Your task to perform on an android device: check battery use Image 0: 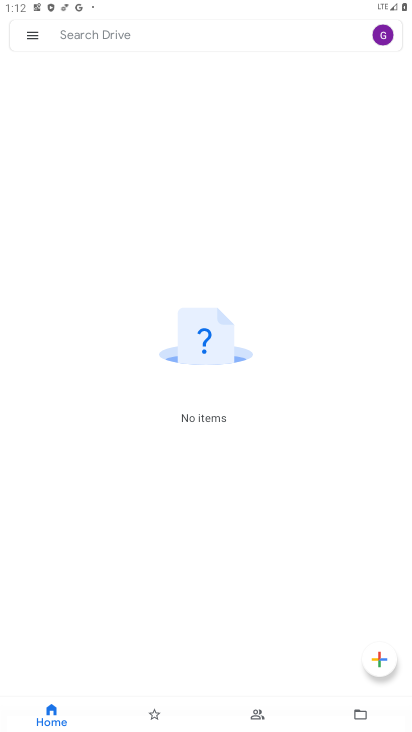
Step 0: press home button
Your task to perform on an android device: check battery use Image 1: 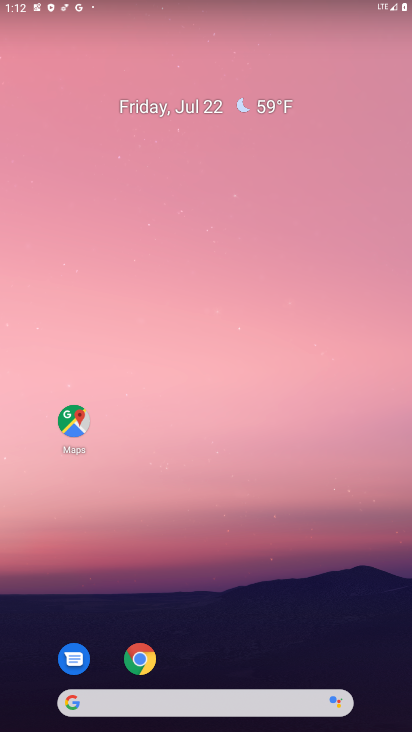
Step 1: drag from (289, 437) to (291, 12)
Your task to perform on an android device: check battery use Image 2: 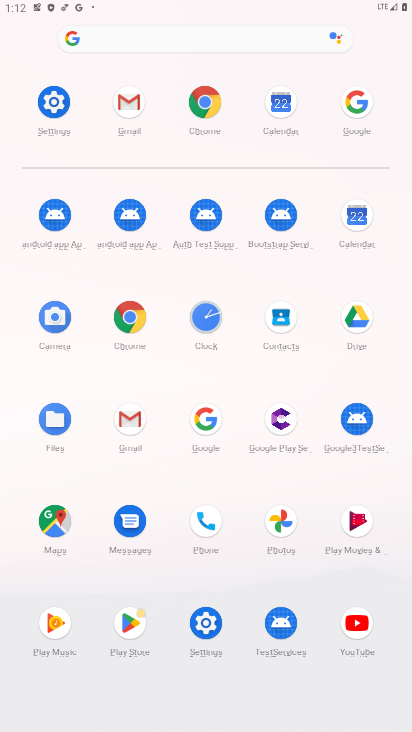
Step 2: click (57, 101)
Your task to perform on an android device: check battery use Image 3: 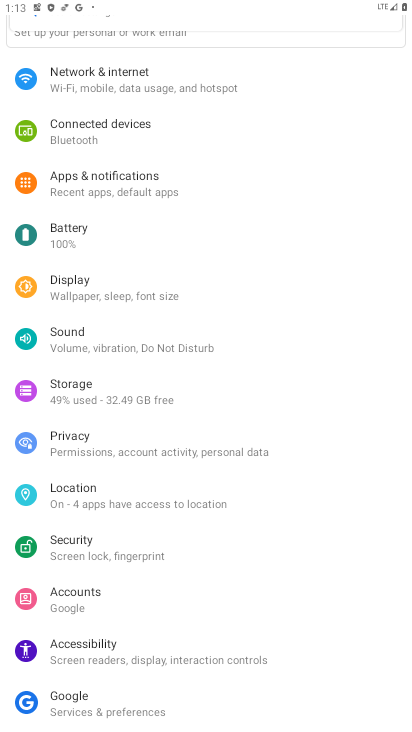
Step 3: click (93, 233)
Your task to perform on an android device: check battery use Image 4: 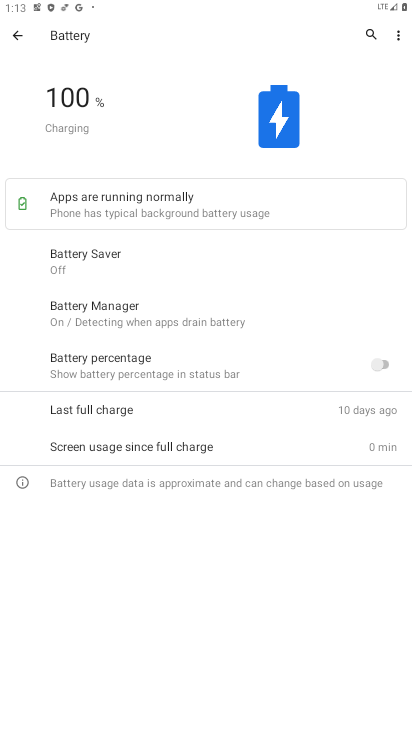
Step 4: task complete